Your task to perform on an android device: open a bookmark in the chrome app Image 0: 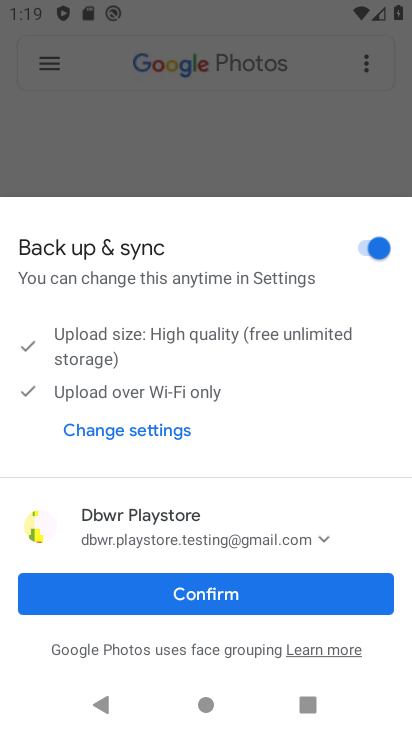
Step 0: press home button
Your task to perform on an android device: open a bookmark in the chrome app Image 1: 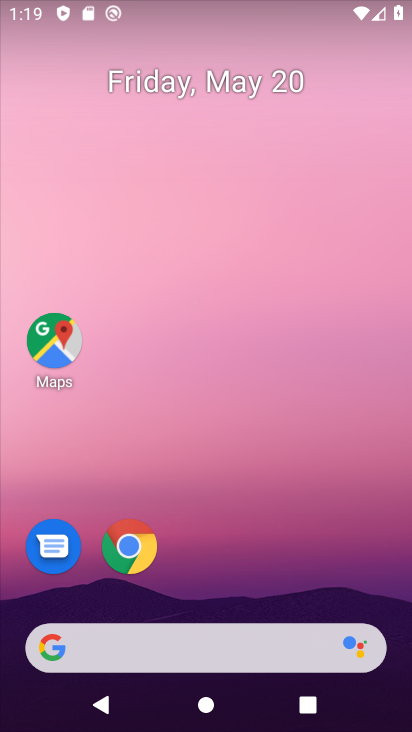
Step 1: drag from (245, 656) to (303, 145)
Your task to perform on an android device: open a bookmark in the chrome app Image 2: 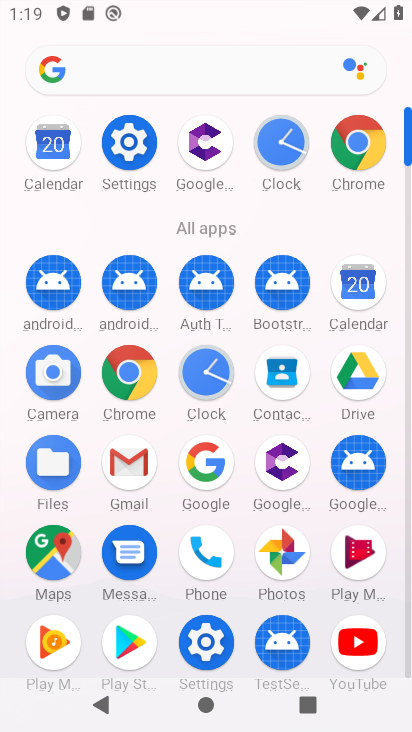
Step 2: click (119, 374)
Your task to perform on an android device: open a bookmark in the chrome app Image 3: 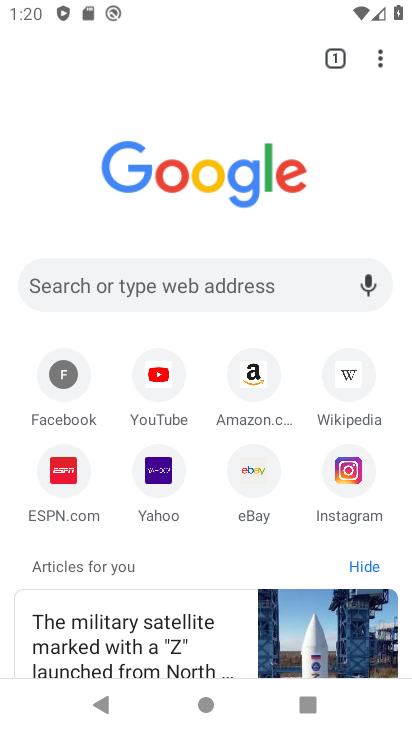
Step 3: task complete